Your task to perform on an android device: turn off notifications in google photos Image 0: 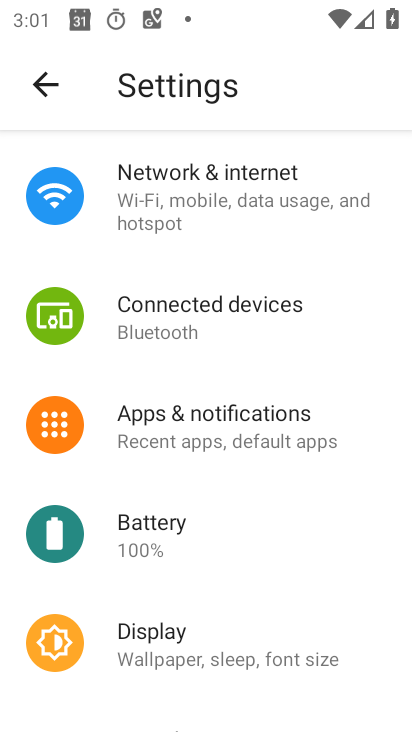
Step 0: press home button
Your task to perform on an android device: turn off notifications in google photos Image 1: 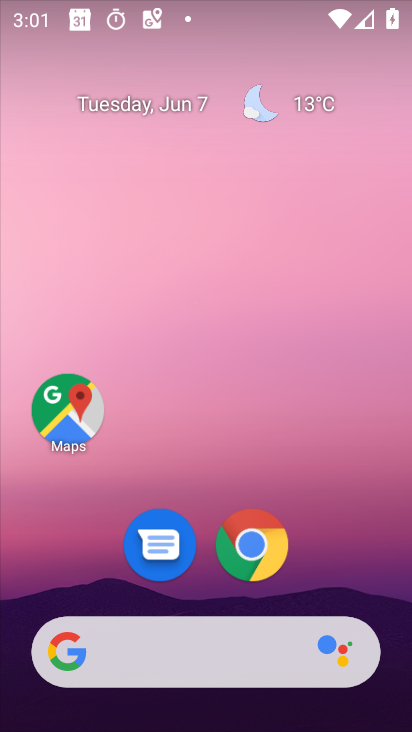
Step 1: drag from (361, 577) to (210, 31)
Your task to perform on an android device: turn off notifications in google photos Image 2: 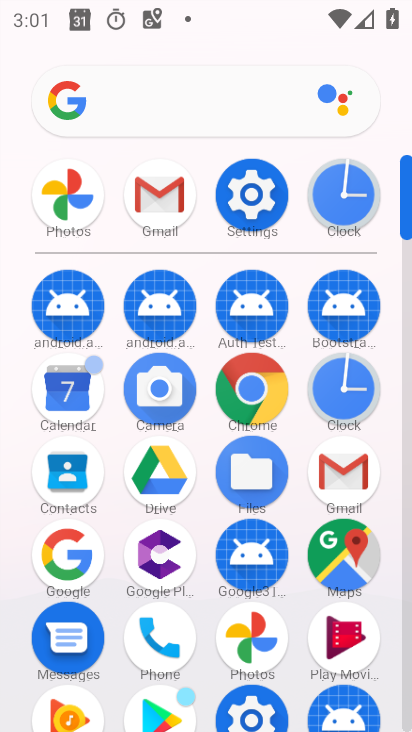
Step 2: click (256, 623)
Your task to perform on an android device: turn off notifications in google photos Image 3: 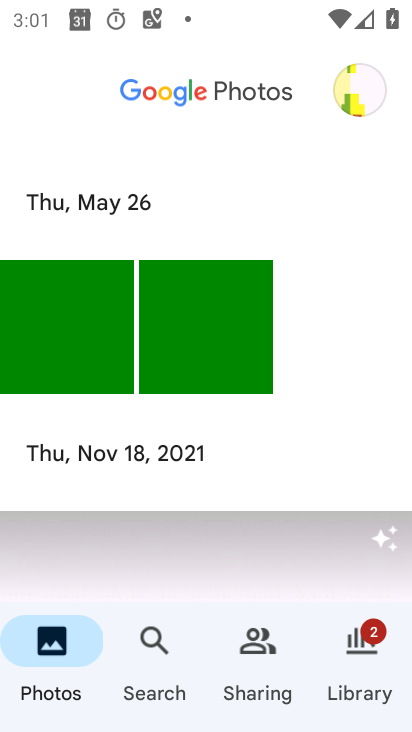
Step 3: click (357, 97)
Your task to perform on an android device: turn off notifications in google photos Image 4: 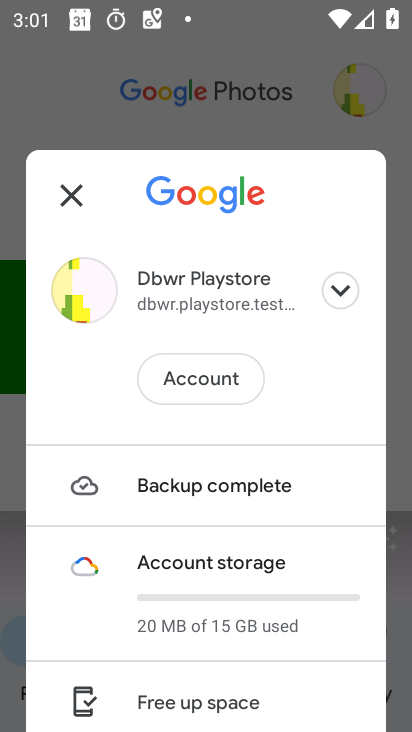
Step 4: drag from (265, 639) to (292, 229)
Your task to perform on an android device: turn off notifications in google photos Image 5: 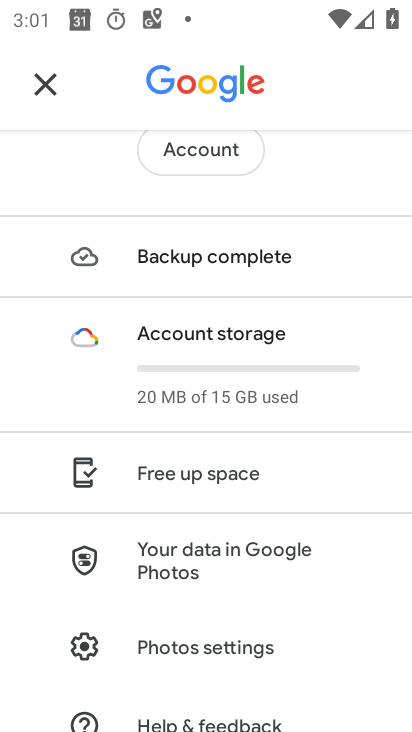
Step 5: click (218, 639)
Your task to perform on an android device: turn off notifications in google photos Image 6: 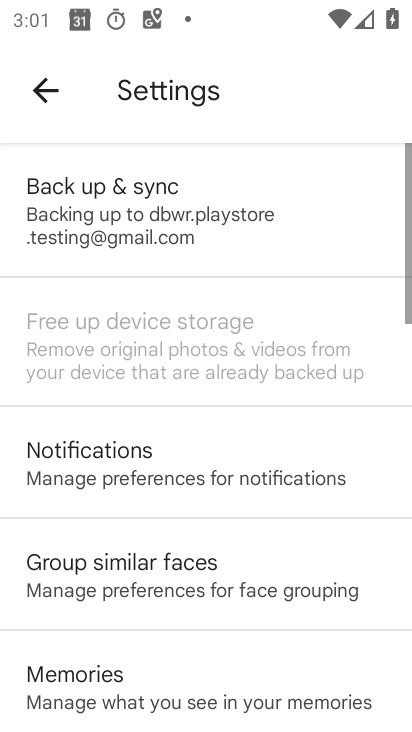
Step 6: click (193, 463)
Your task to perform on an android device: turn off notifications in google photos Image 7: 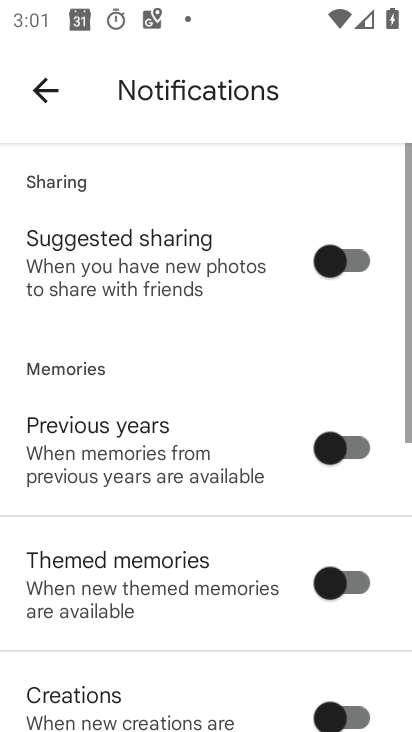
Step 7: task complete